Your task to perform on an android device: Open the calendar and show me this week's events? Image 0: 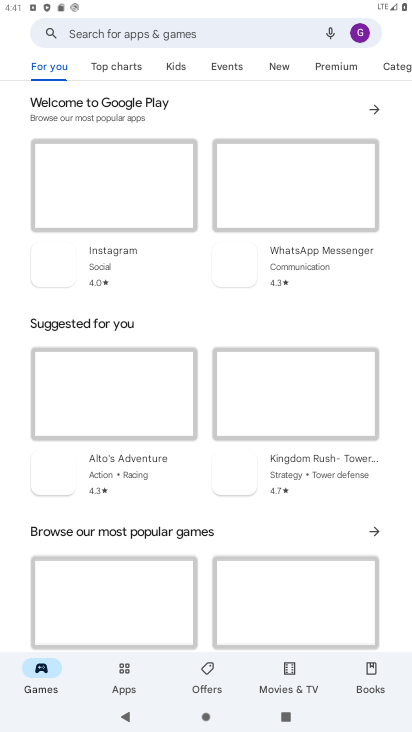
Step 0: press home button
Your task to perform on an android device: Open the calendar and show me this week's events? Image 1: 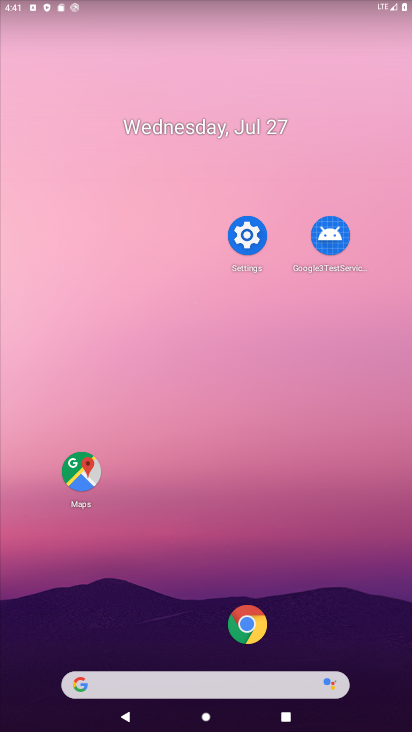
Step 1: click (188, 130)
Your task to perform on an android device: Open the calendar and show me this week's events? Image 2: 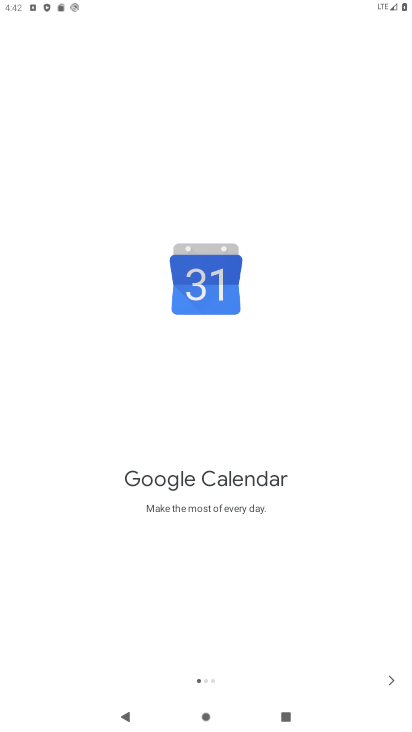
Step 2: click (382, 685)
Your task to perform on an android device: Open the calendar and show me this week's events? Image 3: 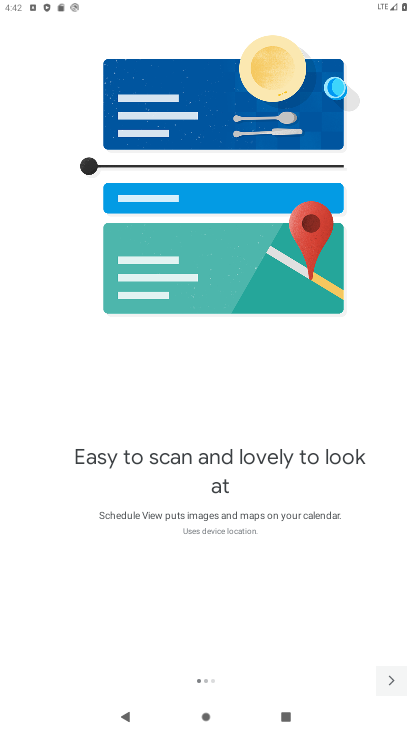
Step 3: click (382, 685)
Your task to perform on an android device: Open the calendar and show me this week's events? Image 4: 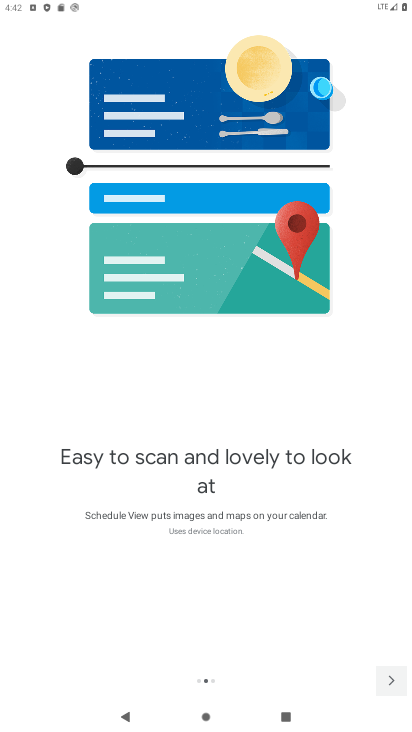
Step 4: click (382, 685)
Your task to perform on an android device: Open the calendar and show me this week's events? Image 5: 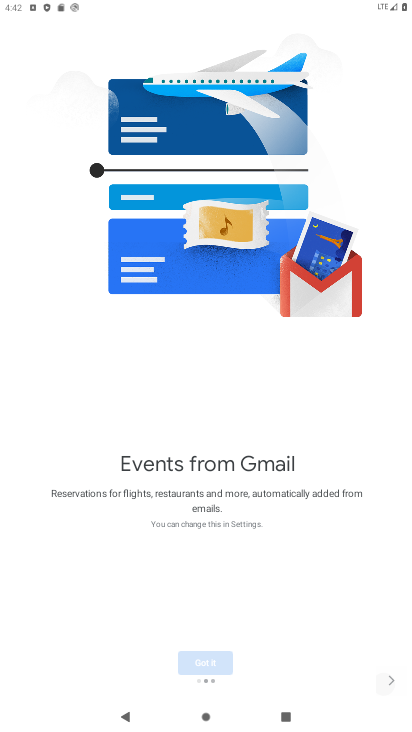
Step 5: click (382, 685)
Your task to perform on an android device: Open the calendar and show me this week's events? Image 6: 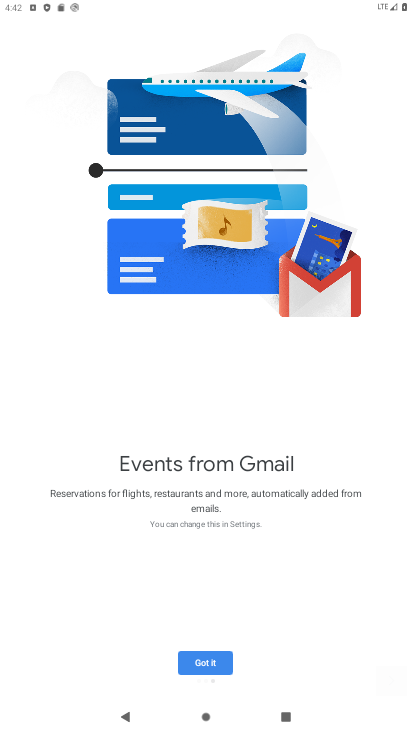
Step 6: click (382, 685)
Your task to perform on an android device: Open the calendar and show me this week's events? Image 7: 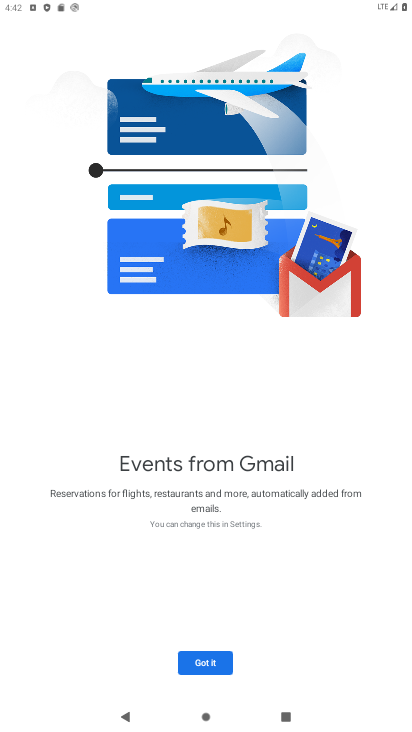
Step 7: click (382, 685)
Your task to perform on an android device: Open the calendar and show me this week's events? Image 8: 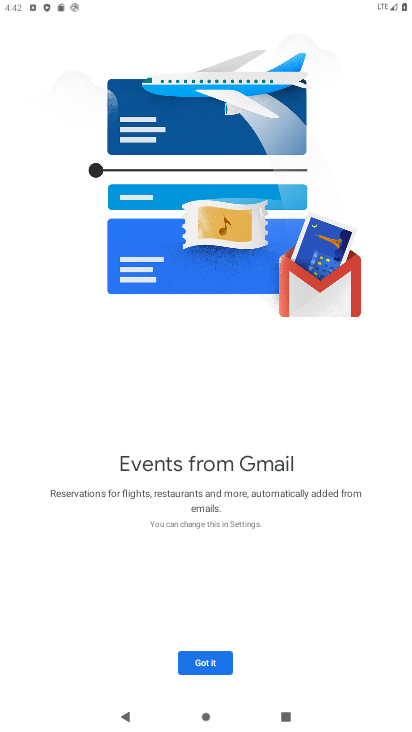
Step 8: click (382, 685)
Your task to perform on an android device: Open the calendar and show me this week's events? Image 9: 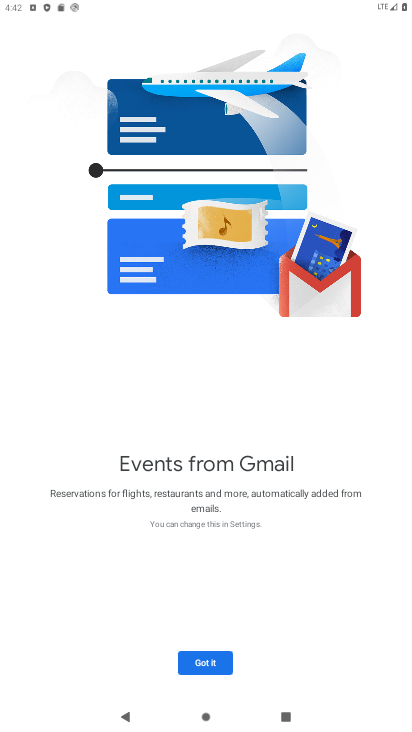
Step 9: click (382, 685)
Your task to perform on an android device: Open the calendar and show me this week's events? Image 10: 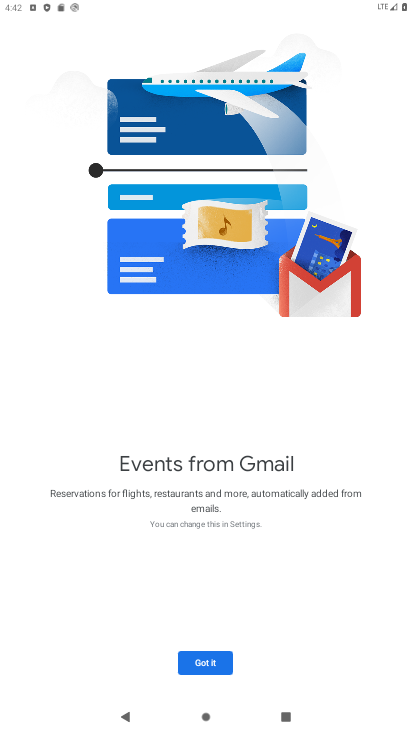
Step 10: click (214, 658)
Your task to perform on an android device: Open the calendar and show me this week's events? Image 11: 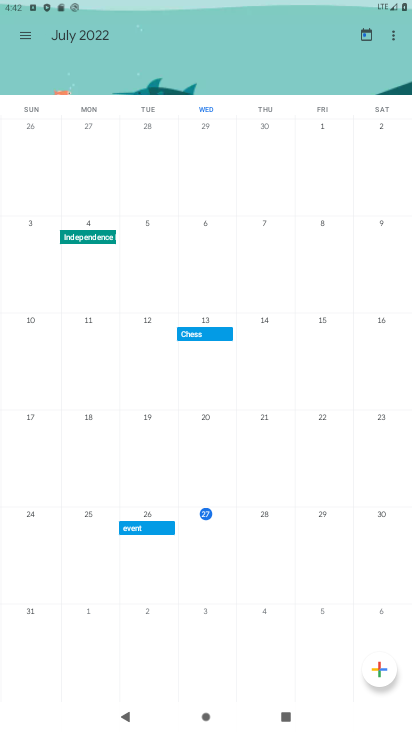
Step 11: task complete